Your task to perform on an android device: Open the web browser Image 0: 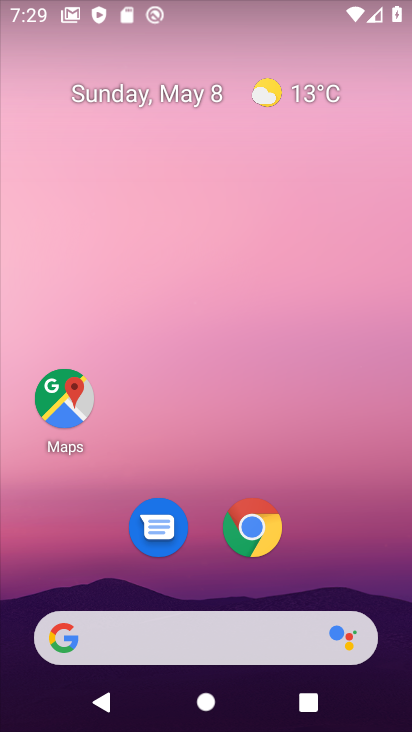
Step 0: click (206, 629)
Your task to perform on an android device: Open the web browser Image 1: 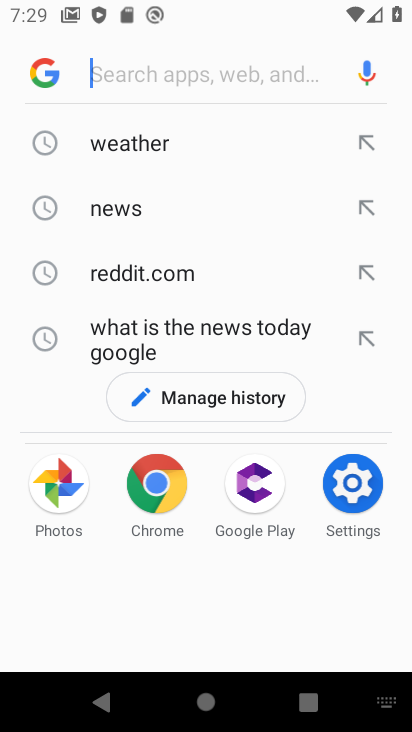
Step 1: task complete